Your task to perform on an android device: check data usage Image 0: 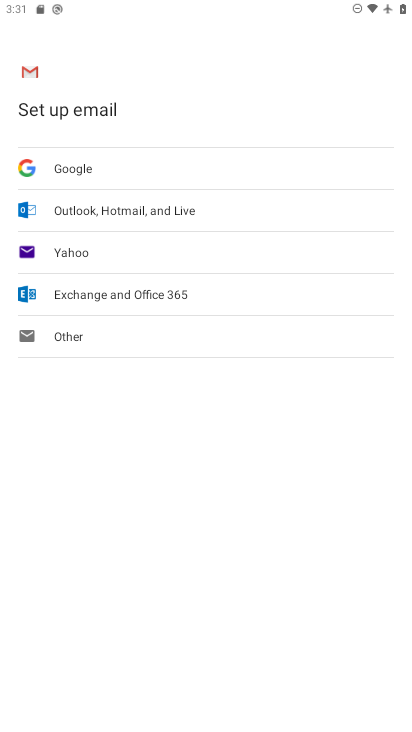
Step 0: press home button
Your task to perform on an android device: check data usage Image 1: 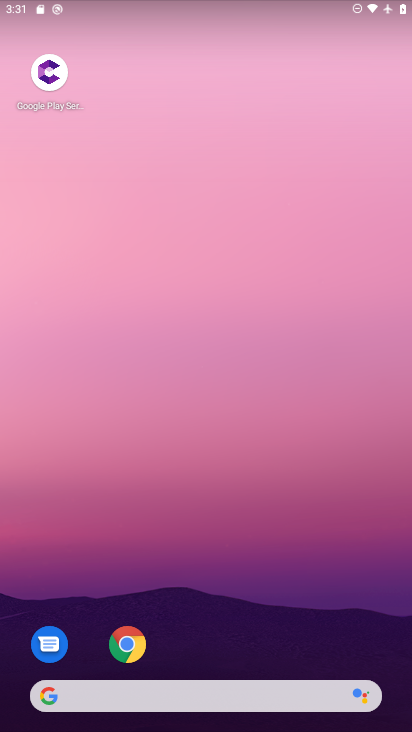
Step 1: drag from (264, 340) to (251, 44)
Your task to perform on an android device: check data usage Image 2: 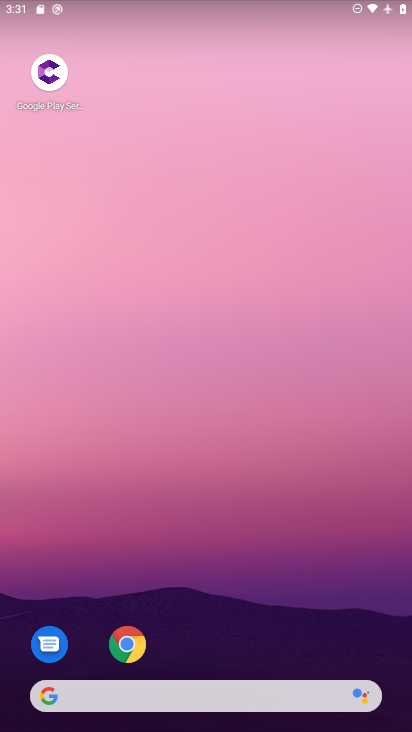
Step 2: drag from (306, 568) to (273, 63)
Your task to perform on an android device: check data usage Image 3: 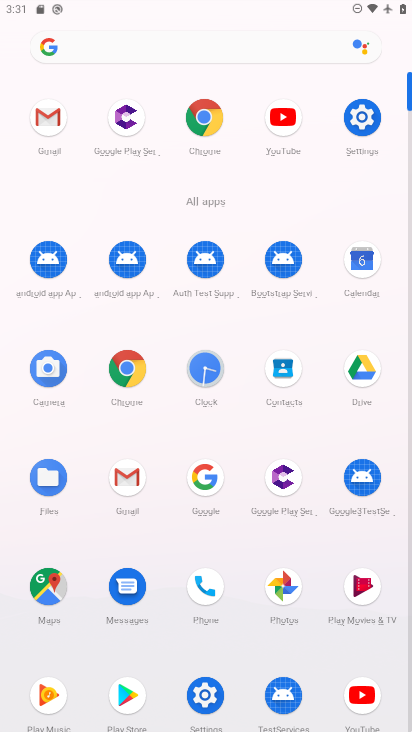
Step 3: click (361, 116)
Your task to perform on an android device: check data usage Image 4: 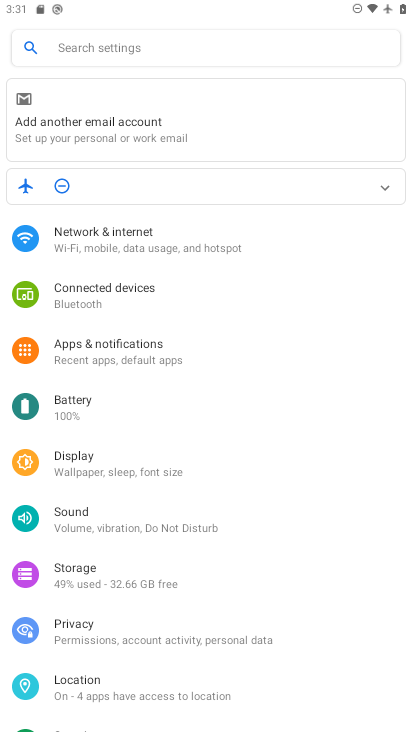
Step 4: click (115, 236)
Your task to perform on an android device: check data usage Image 5: 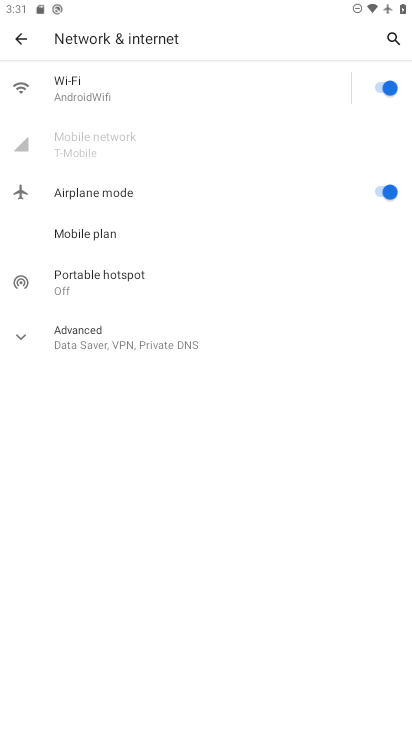
Step 5: task complete